Your task to perform on an android device: check data usage Image 0: 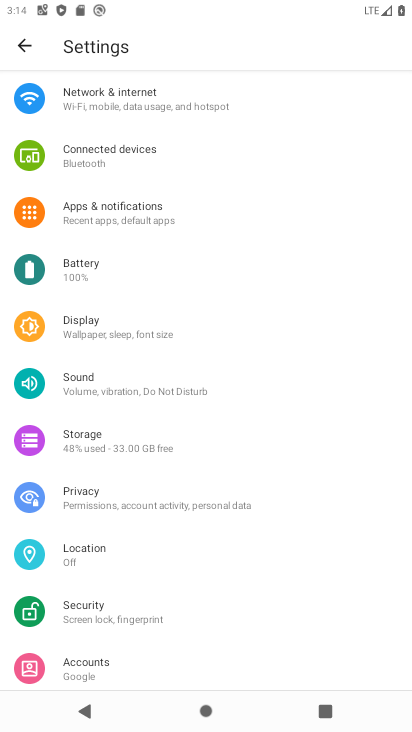
Step 0: click (242, 108)
Your task to perform on an android device: check data usage Image 1: 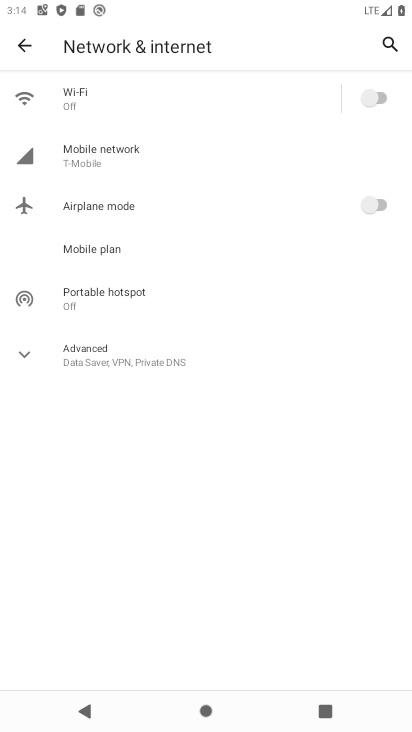
Step 1: click (94, 161)
Your task to perform on an android device: check data usage Image 2: 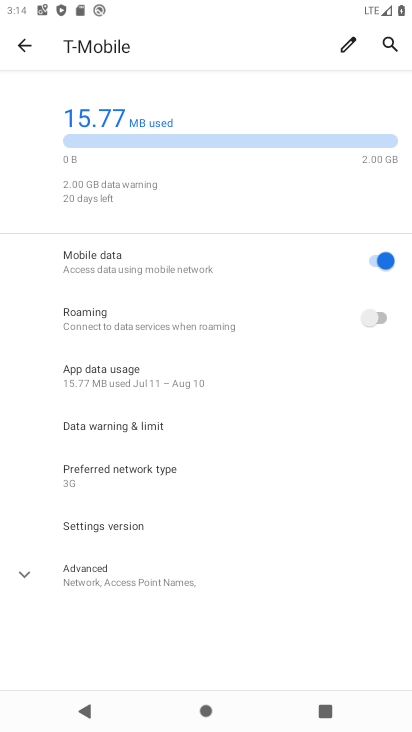
Step 2: click (143, 382)
Your task to perform on an android device: check data usage Image 3: 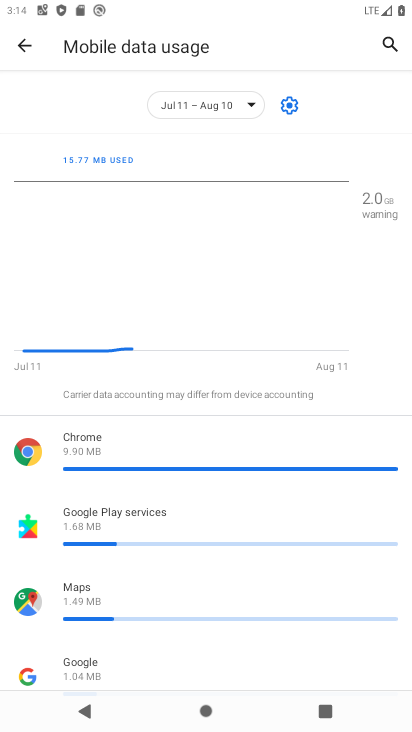
Step 3: task complete